Your task to perform on an android device: change text size in settings app Image 0: 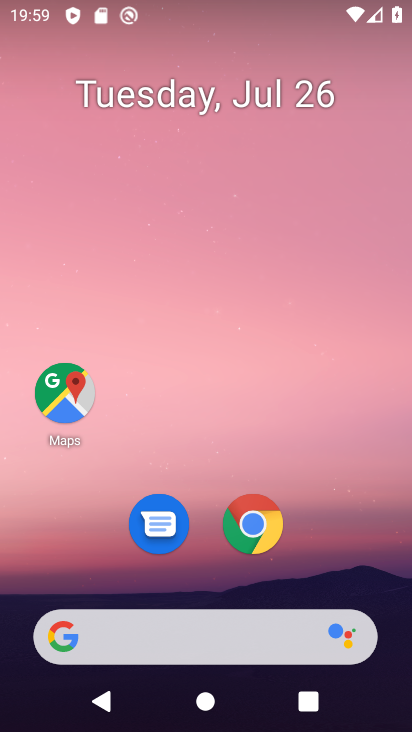
Step 0: press home button
Your task to perform on an android device: change text size in settings app Image 1: 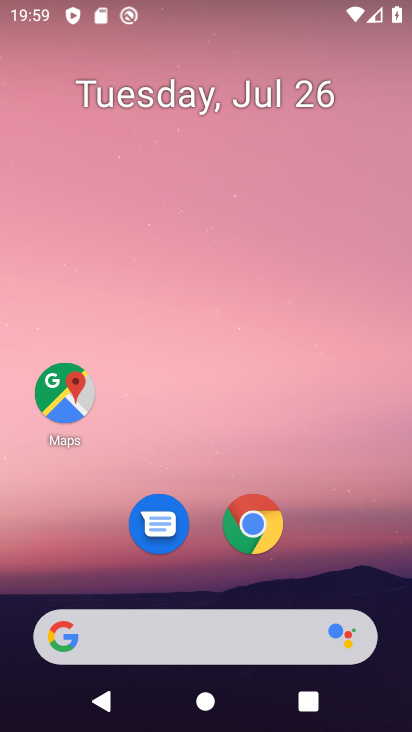
Step 1: drag from (172, 640) to (282, 19)
Your task to perform on an android device: change text size in settings app Image 2: 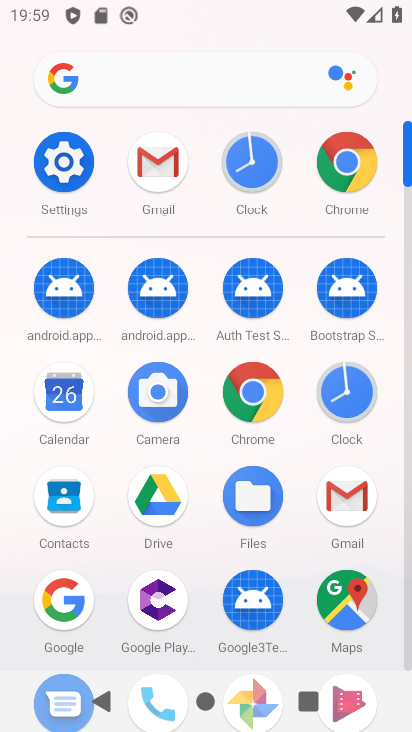
Step 2: click (70, 167)
Your task to perform on an android device: change text size in settings app Image 3: 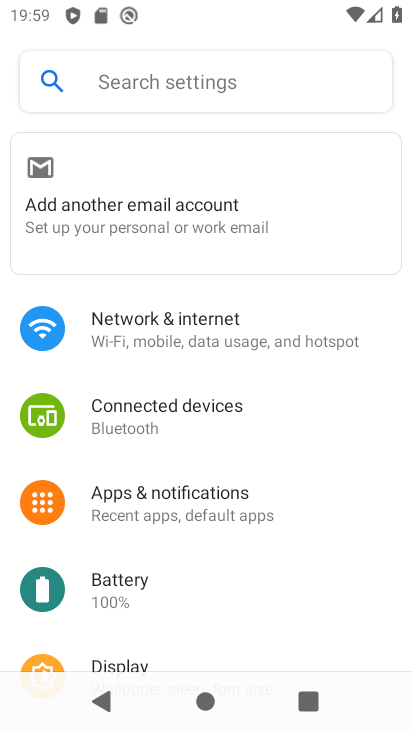
Step 3: drag from (262, 596) to (353, 225)
Your task to perform on an android device: change text size in settings app Image 4: 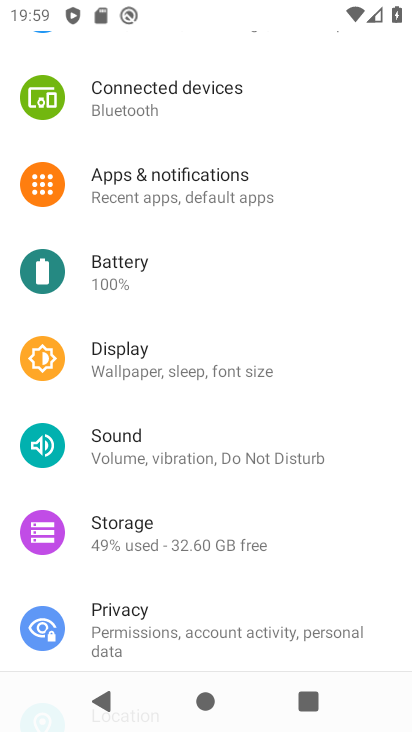
Step 4: click (139, 366)
Your task to perform on an android device: change text size in settings app Image 5: 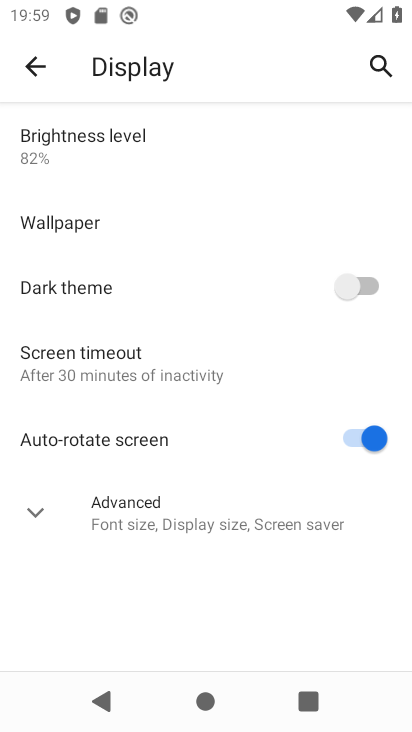
Step 5: click (123, 510)
Your task to perform on an android device: change text size in settings app Image 6: 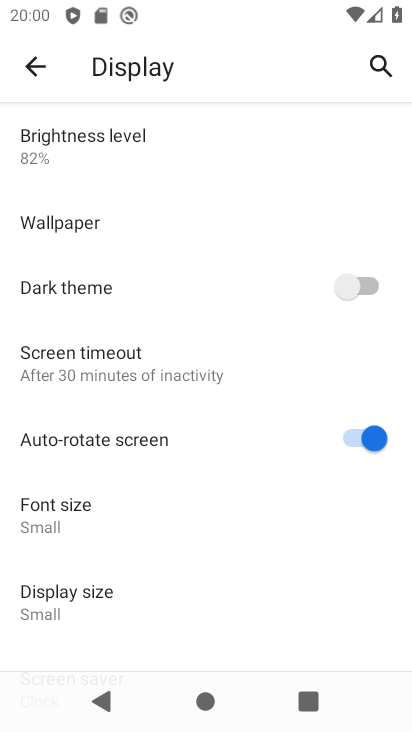
Step 6: click (79, 598)
Your task to perform on an android device: change text size in settings app Image 7: 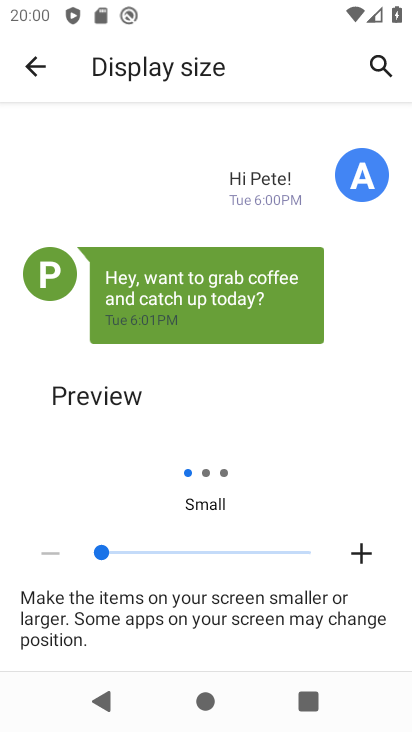
Step 7: click (36, 61)
Your task to perform on an android device: change text size in settings app Image 8: 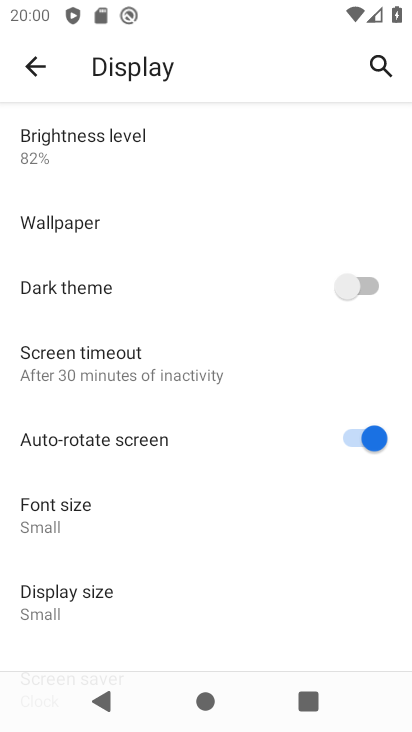
Step 8: click (60, 519)
Your task to perform on an android device: change text size in settings app Image 9: 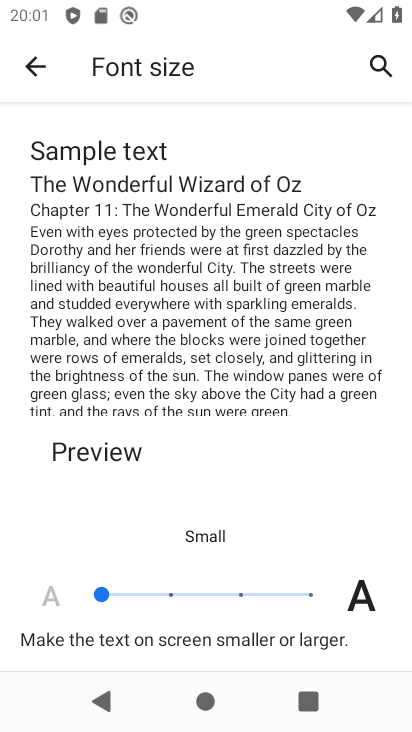
Step 9: click (167, 593)
Your task to perform on an android device: change text size in settings app Image 10: 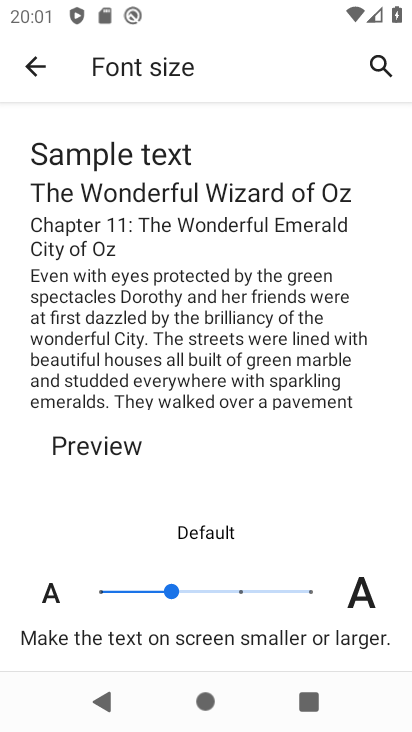
Step 10: task complete